Your task to perform on an android device: Open privacy settings Image 0: 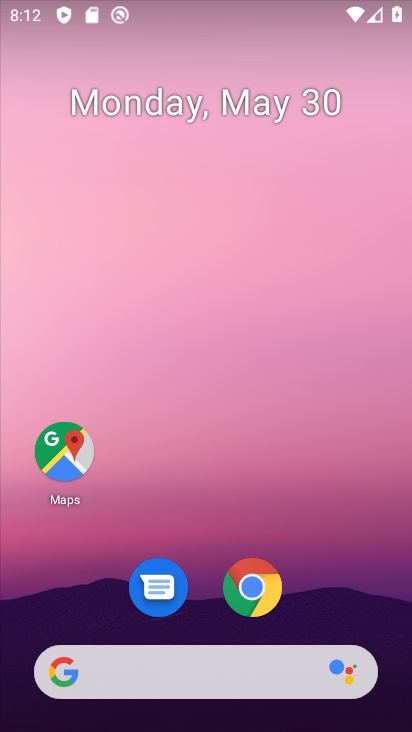
Step 0: drag from (208, 469) to (258, 12)
Your task to perform on an android device: Open privacy settings Image 1: 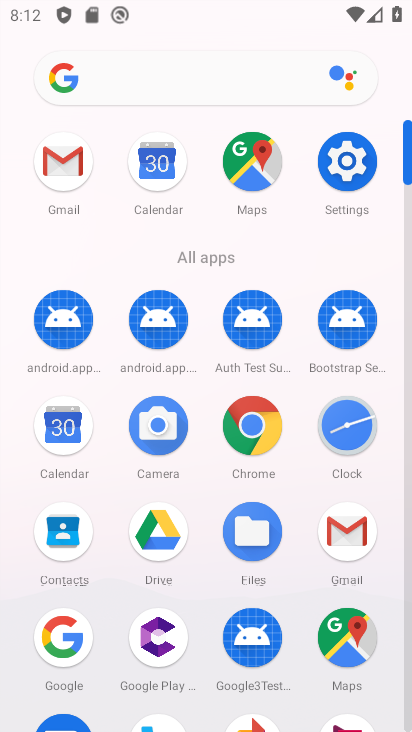
Step 1: click (341, 171)
Your task to perform on an android device: Open privacy settings Image 2: 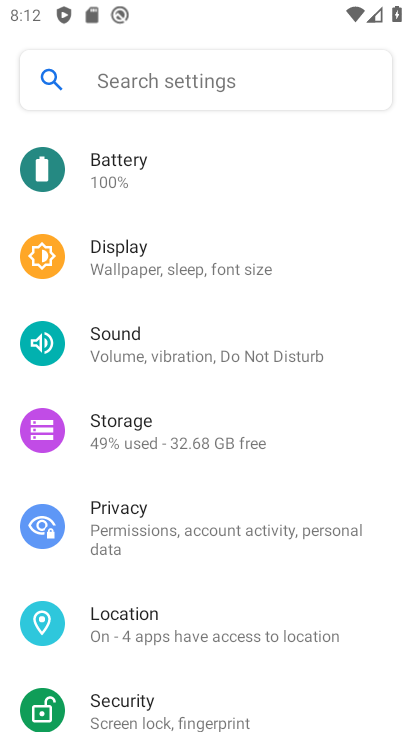
Step 2: click (186, 515)
Your task to perform on an android device: Open privacy settings Image 3: 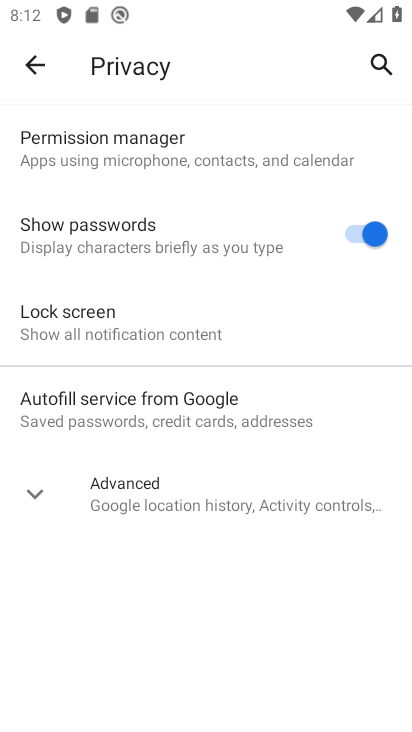
Step 3: task complete